Your task to perform on an android device: change the clock style Image 0: 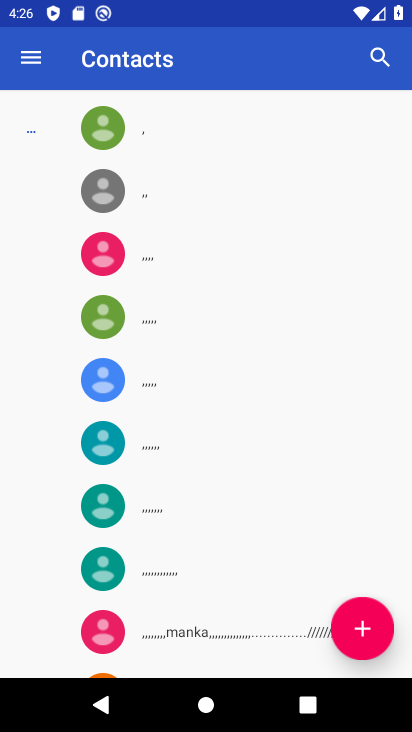
Step 0: press home button
Your task to perform on an android device: change the clock style Image 1: 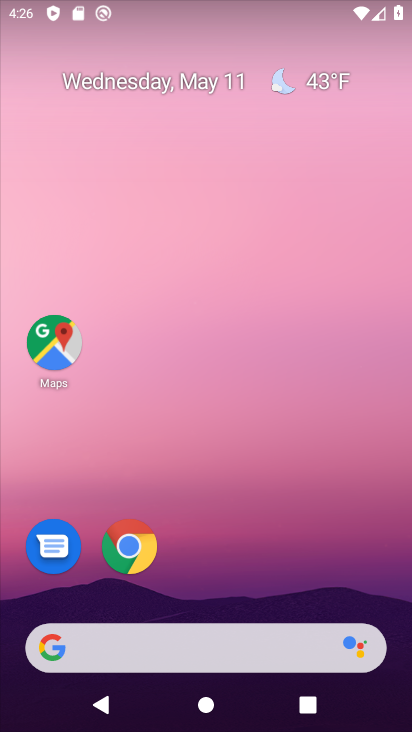
Step 1: drag from (193, 609) to (240, 279)
Your task to perform on an android device: change the clock style Image 2: 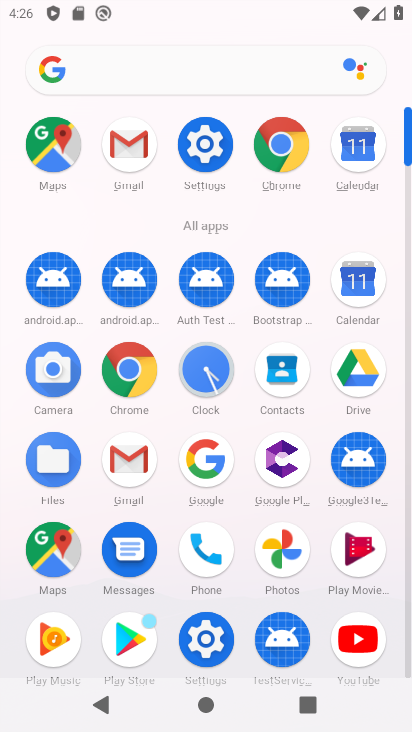
Step 2: click (202, 140)
Your task to perform on an android device: change the clock style Image 3: 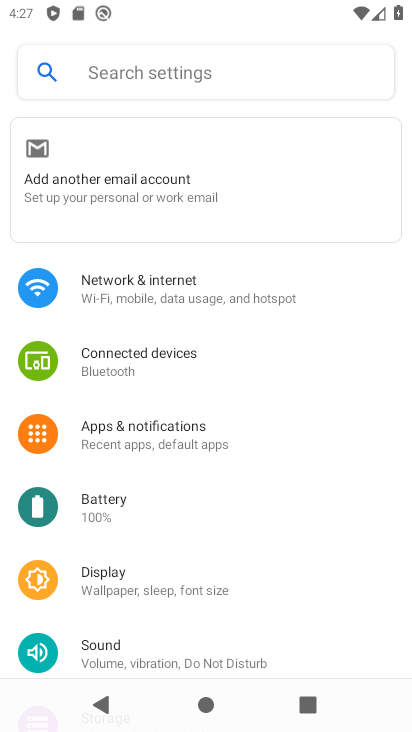
Step 3: press back button
Your task to perform on an android device: change the clock style Image 4: 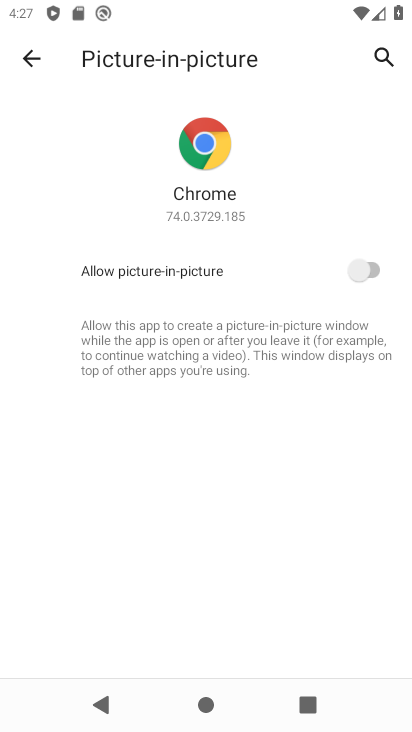
Step 4: press home button
Your task to perform on an android device: change the clock style Image 5: 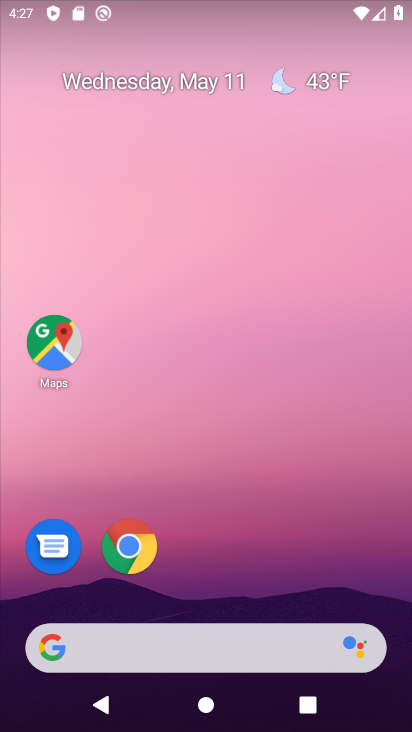
Step 5: drag from (194, 564) to (203, 303)
Your task to perform on an android device: change the clock style Image 6: 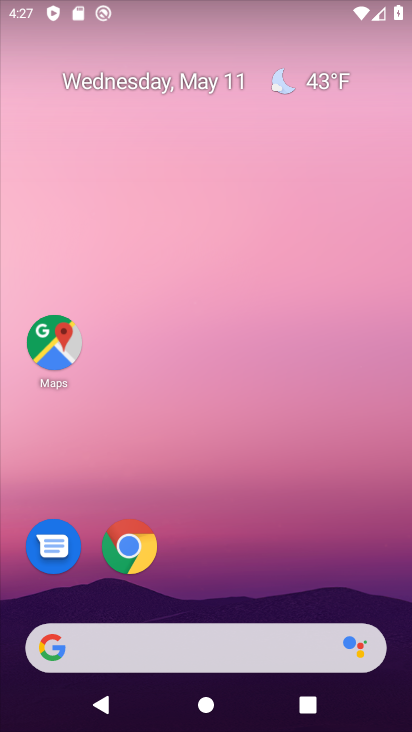
Step 6: drag from (287, 573) to (292, 121)
Your task to perform on an android device: change the clock style Image 7: 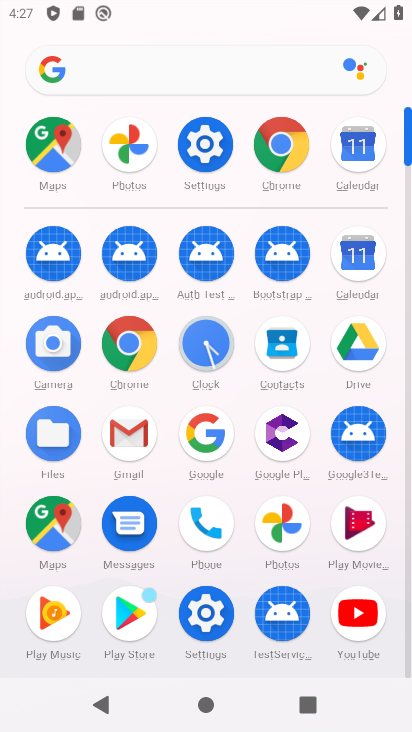
Step 7: click (189, 355)
Your task to perform on an android device: change the clock style Image 8: 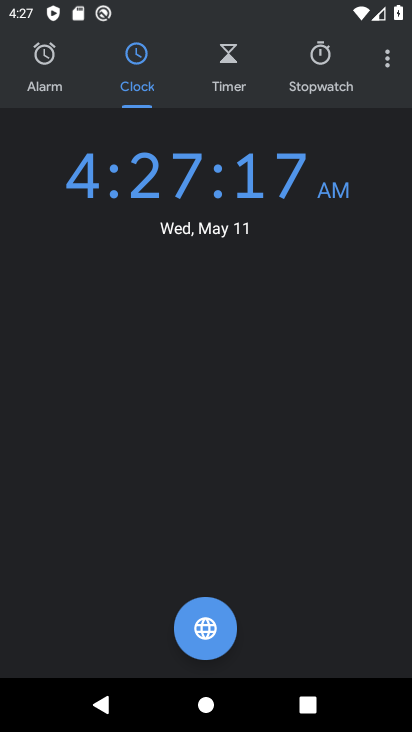
Step 8: click (393, 63)
Your task to perform on an android device: change the clock style Image 9: 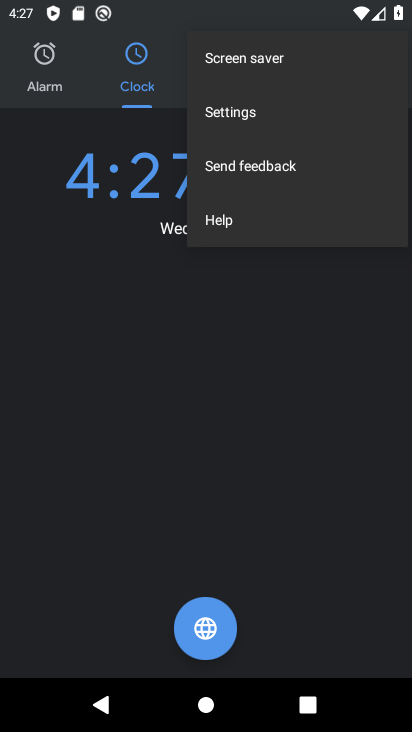
Step 9: click (244, 115)
Your task to perform on an android device: change the clock style Image 10: 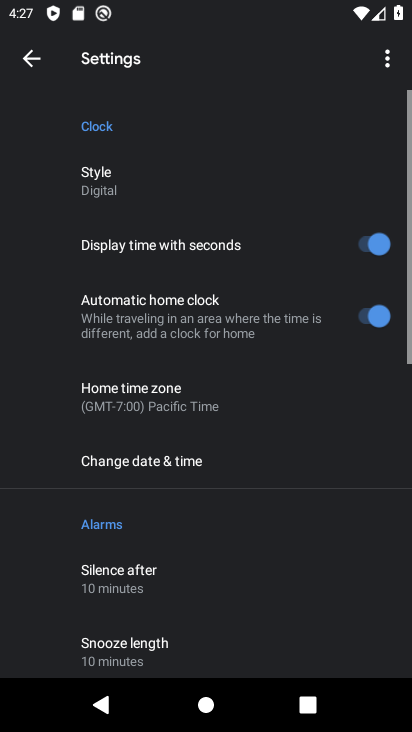
Step 10: click (103, 169)
Your task to perform on an android device: change the clock style Image 11: 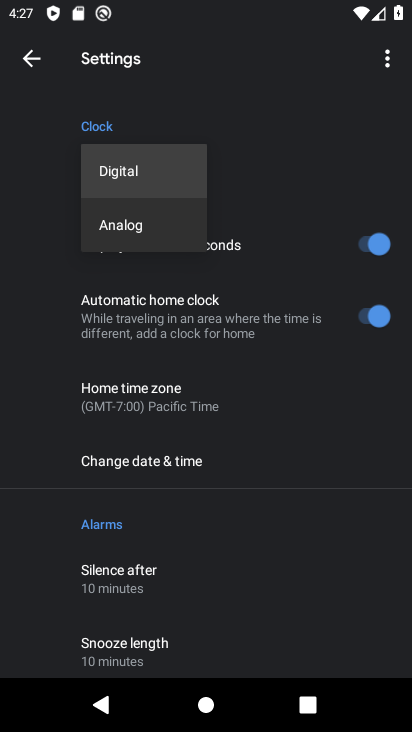
Step 11: click (123, 224)
Your task to perform on an android device: change the clock style Image 12: 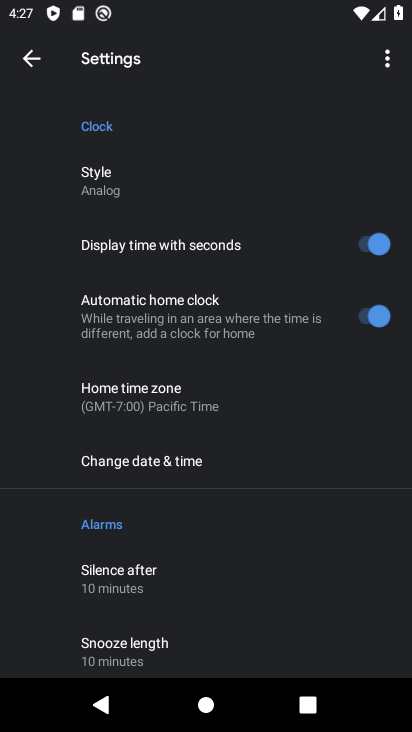
Step 12: task complete